Your task to perform on an android device: Find coffee shops on Maps Image 0: 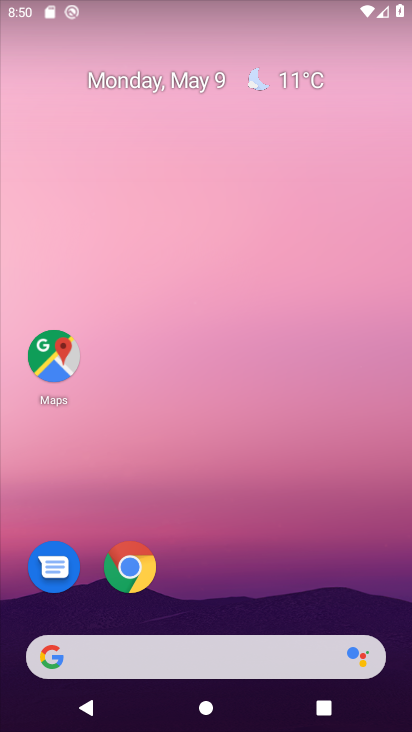
Step 0: drag from (260, 537) to (265, 62)
Your task to perform on an android device: Find coffee shops on Maps Image 1: 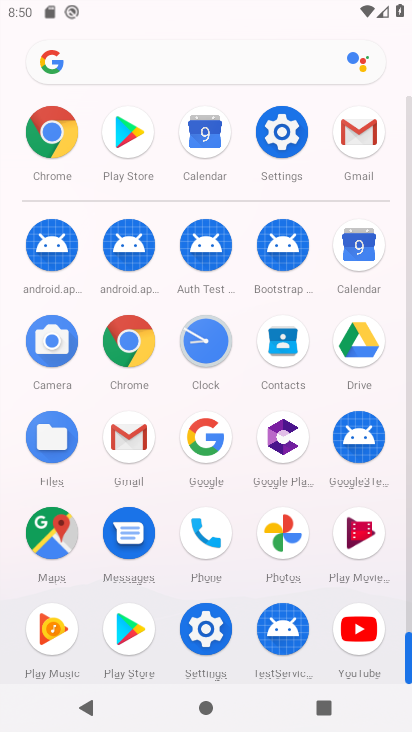
Step 1: click (45, 529)
Your task to perform on an android device: Find coffee shops on Maps Image 2: 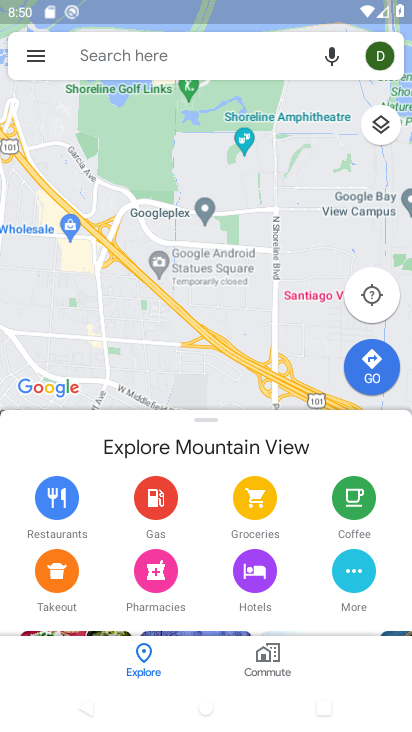
Step 2: click (179, 49)
Your task to perform on an android device: Find coffee shops on Maps Image 3: 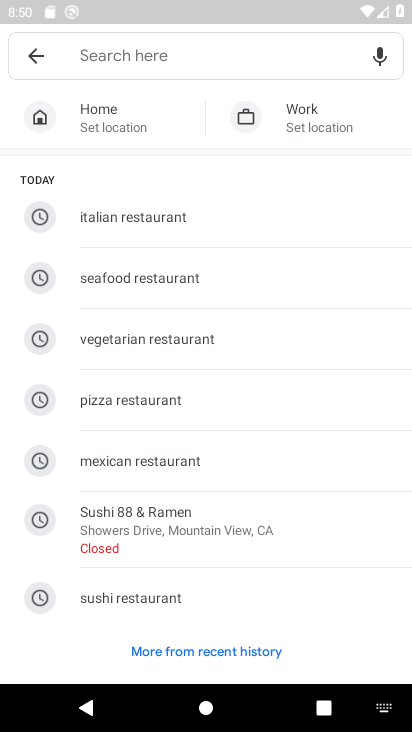
Step 3: type "coffee"
Your task to perform on an android device: Find coffee shops on Maps Image 4: 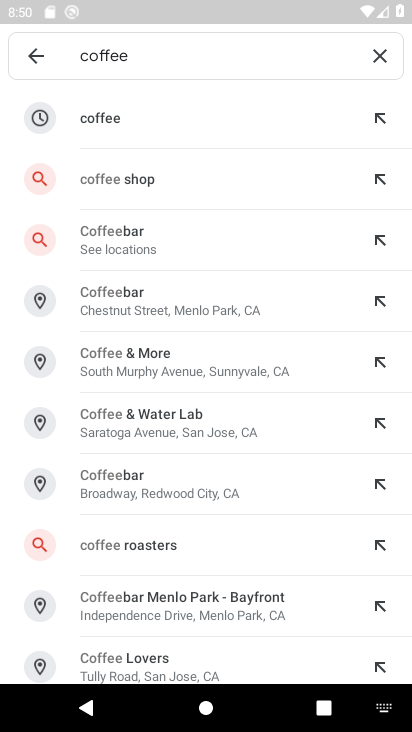
Step 4: click (123, 168)
Your task to perform on an android device: Find coffee shops on Maps Image 5: 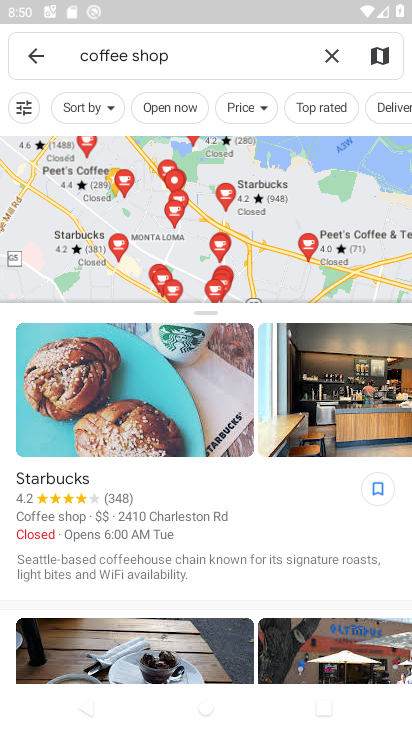
Step 5: task complete